Your task to perform on an android device: Open battery settings Image 0: 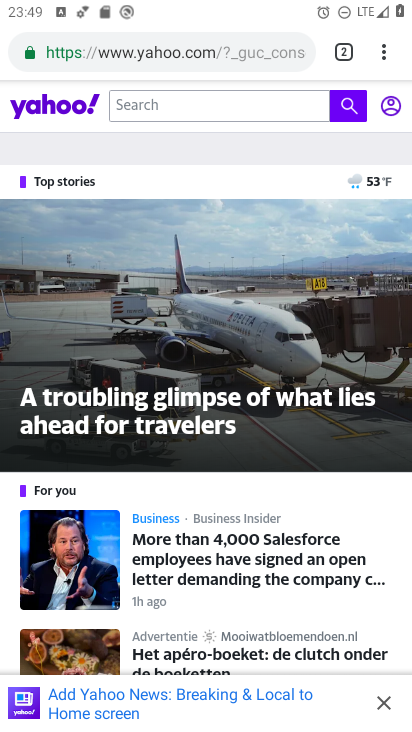
Step 0: press home button
Your task to perform on an android device: Open battery settings Image 1: 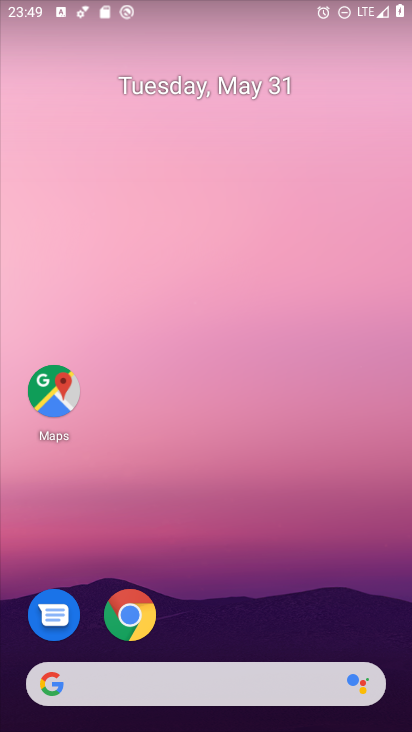
Step 1: drag from (392, 669) to (276, 111)
Your task to perform on an android device: Open battery settings Image 2: 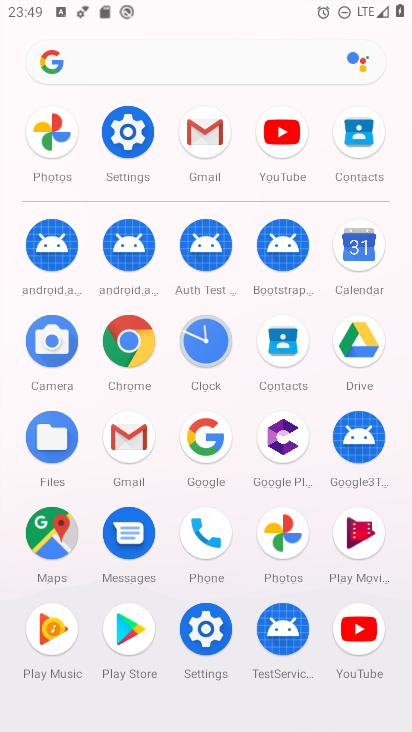
Step 2: click (204, 630)
Your task to perform on an android device: Open battery settings Image 3: 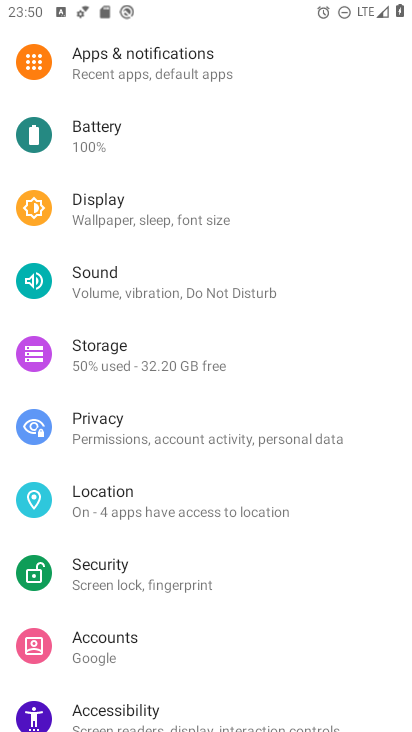
Step 3: drag from (318, 207) to (347, 514)
Your task to perform on an android device: Open battery settings Image 4: 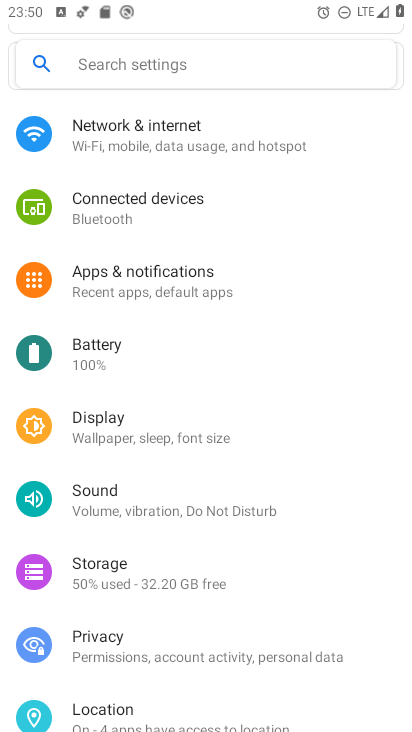
Step 4: click (86, 343)
Your task to perform on an android device: Open battery settings Image 5: 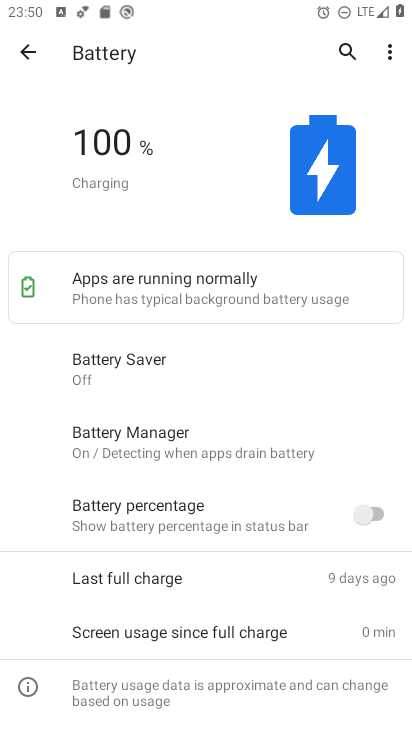
Step 5: task complete